Your task to perform on an android device: Go to Yahoo.com Image 0: 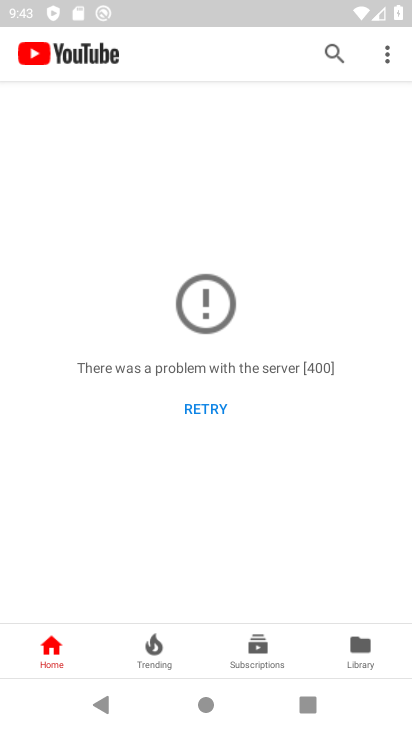
Step 0: press back button
Your task to perform on an android device: Go to Yahoo.com Image 1: 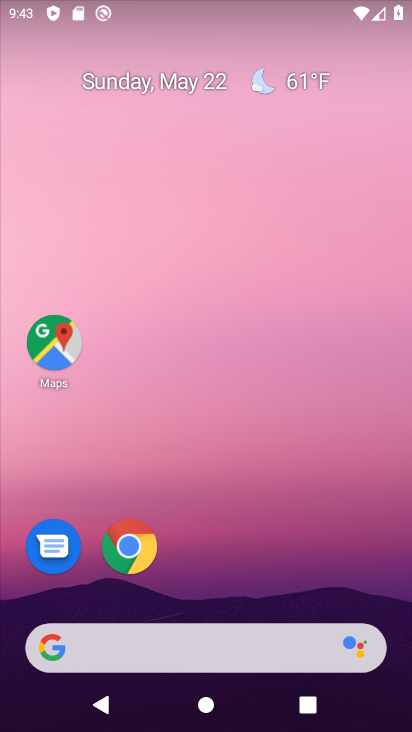
Step 1: click (129, 558)
Your task to perform on an android device: Go to Yahoo.com Image 2: 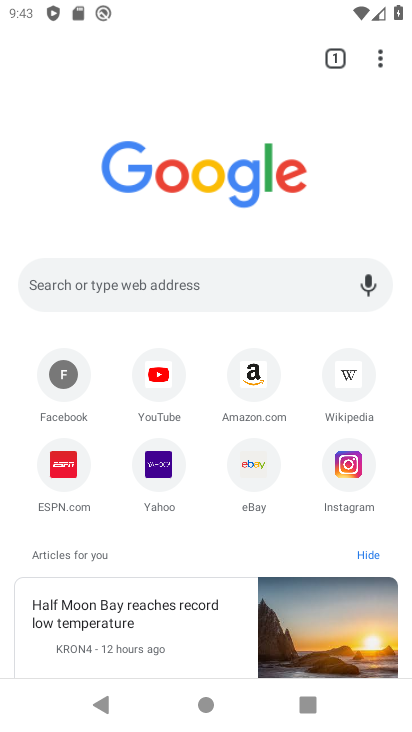
Step 2: click (151, 477)
Your task to perform on an android device: Go to Yahoo.com Image 3: 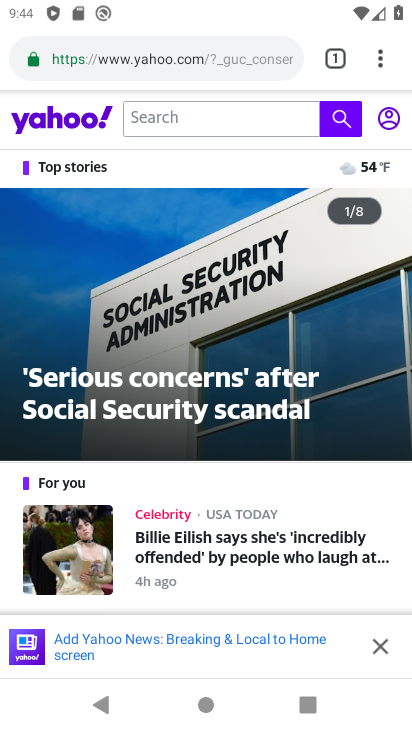
Step 3: task complete